Your task to perform on an android device: Show me popular videos on Youtube Image 0: 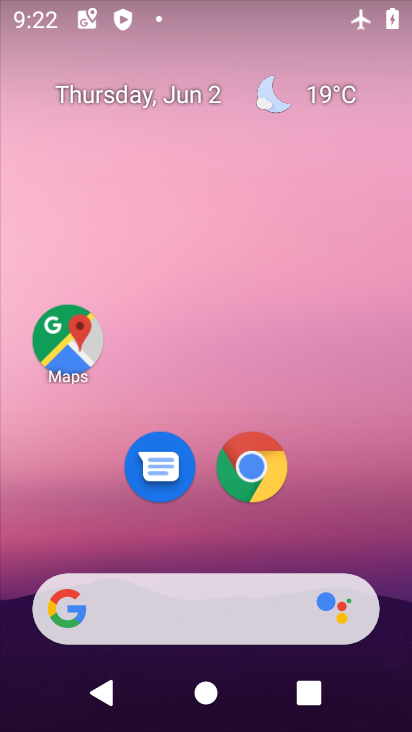
Step 0: drag from (223, 546) to (196, 64)
Your task to perform on an android device: Show me popular videos on Youtube Image 1: 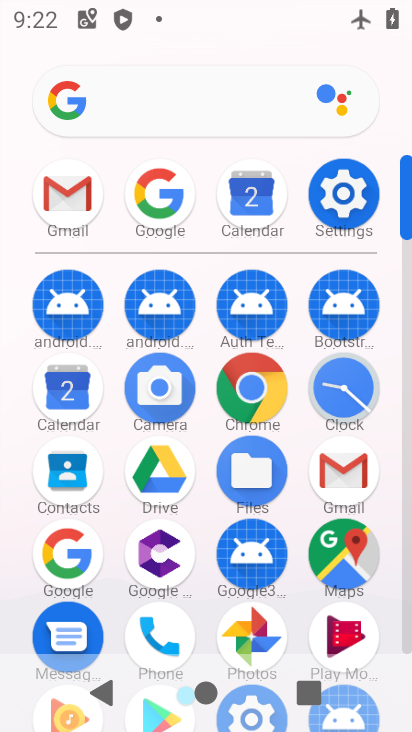
Step 1: drag from (278, 567) to (268, 296)
Your task to perform on an android device: Show me popular videos on Youtube Image 2: 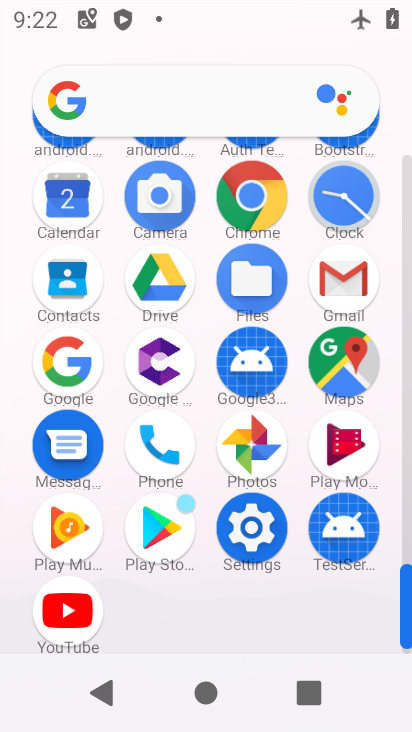
Step 2: click (69, 285)
Your task to perform on an android device: Show me popular videos on Youtube Image 3: 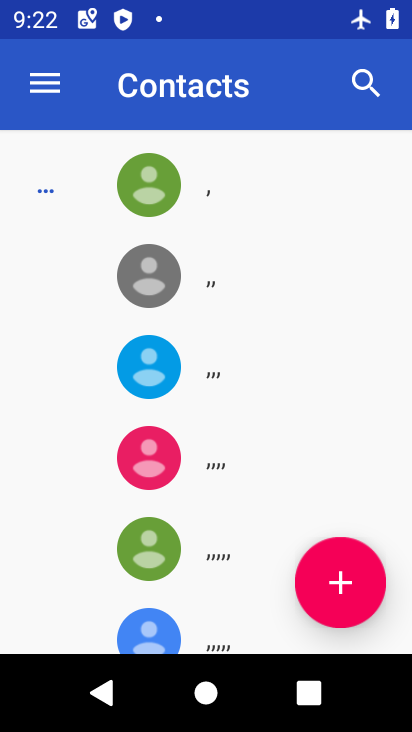
Step 3: click (354, 601)
Your task to perform on an android device: Show me popular videos on Youtube Image 4: 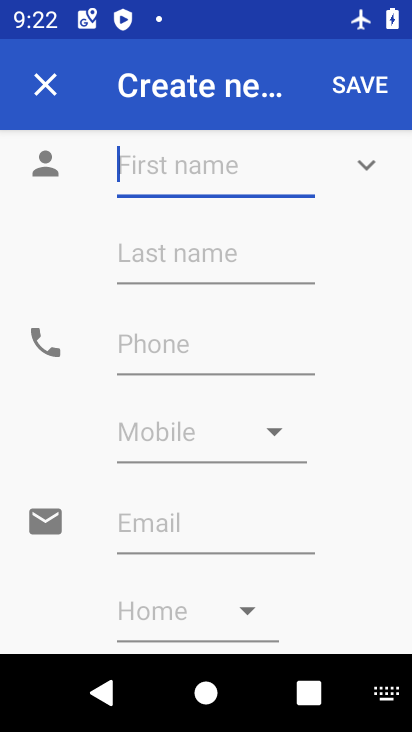
Step 4: type "Narendra "
Your task to perform on an android device: Show me popular videos on Youtube Image 5: 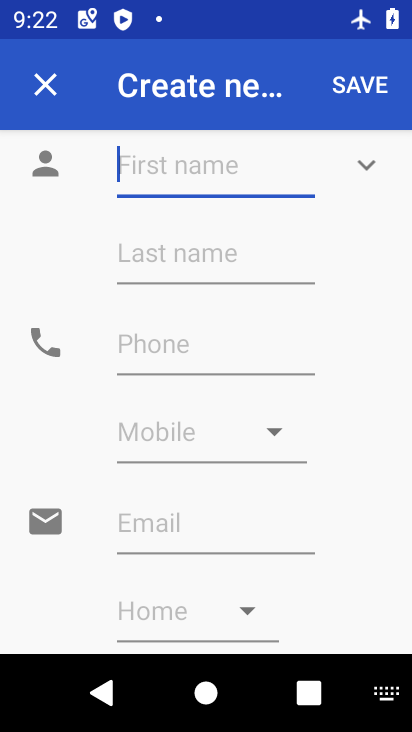
Step 5: click (152, 255)
Your task to perform on an android device: Show me popular videos on Youtube Image 6: 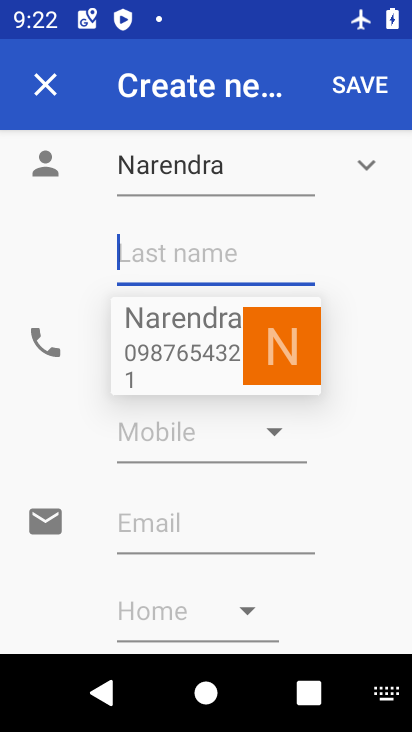
Step 6: type "Soni"
Your task to perform on an android device: Show me popular videos on Youtube Image 7: 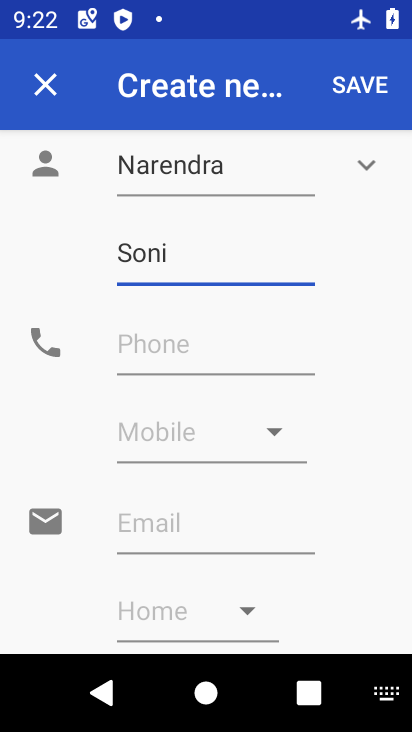
Step 7: click (255, 342)
Your task to perform on an android device: Show me popular videos on Youtube Image 8: 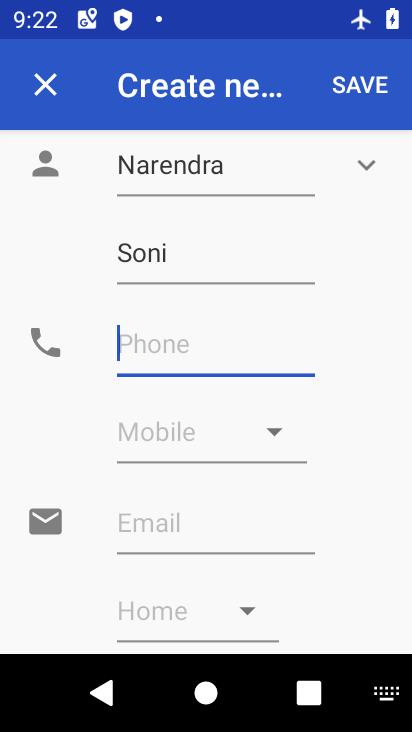
Step 8: type "8989899090"
Your task to perform on an android device: Show me popular videos on Youtube Image 9: 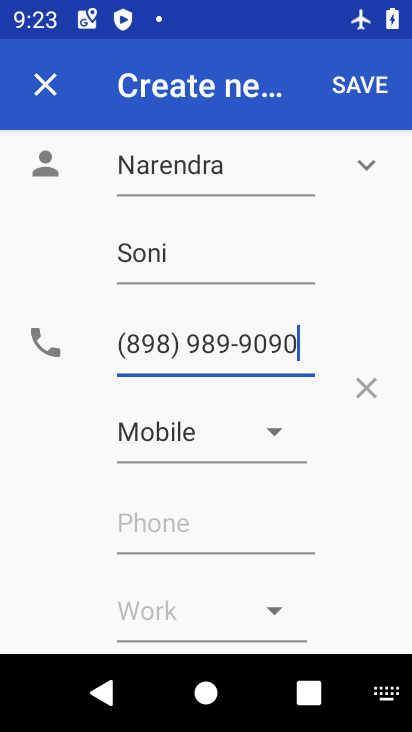
Step 9: click (359, 89)
Your task to perform on an android device: Show me popular videos on Youtube Image 10: 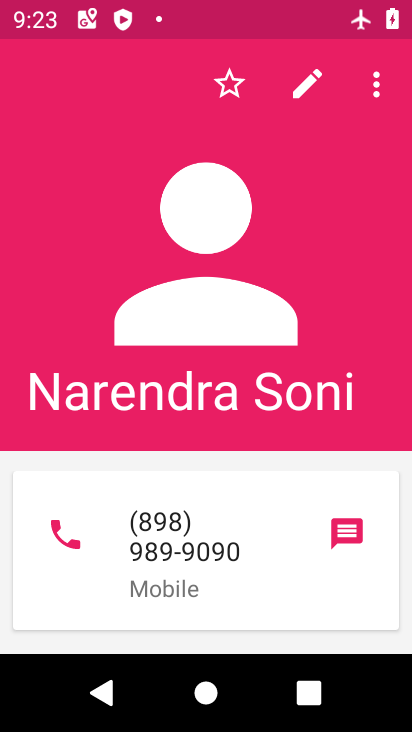
Step 10: task complete